Your task to perform on an android device: Go to battery settings Image 0: 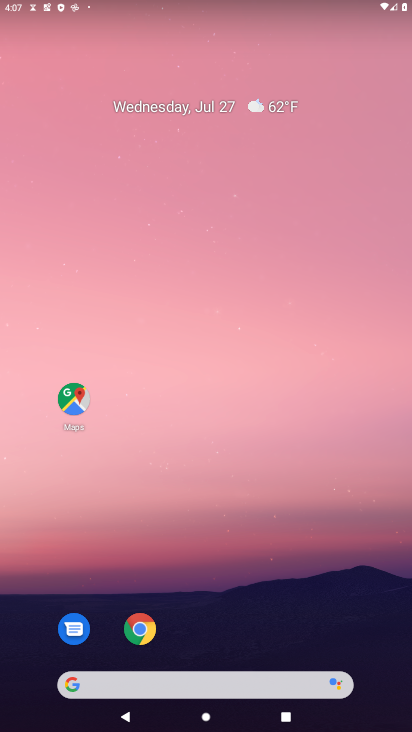
Step 0: drag from (177, 674) to (217, 1)
Your task to perform on an android device: Go to battery settings Image 1: 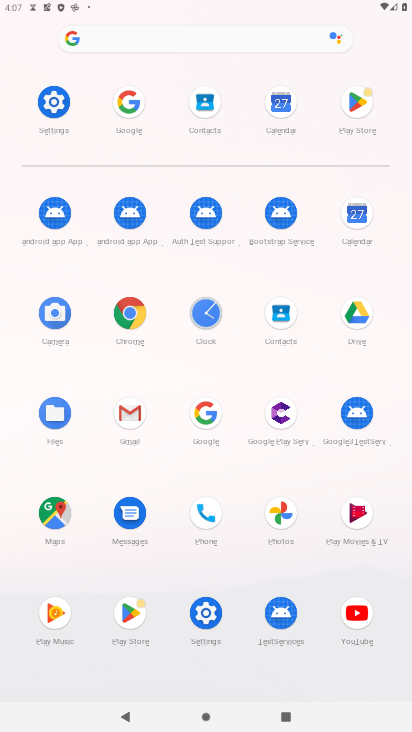
Step 1: click (54, 103)
Your task to perform on an android device: Go to battery settings Image 2: 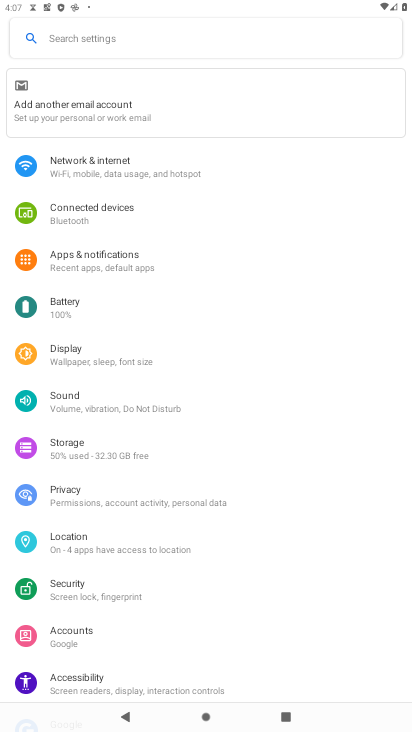
Step 2: click (68, 308)
Your task to perform on an android device: Go to battery settings Image 3: 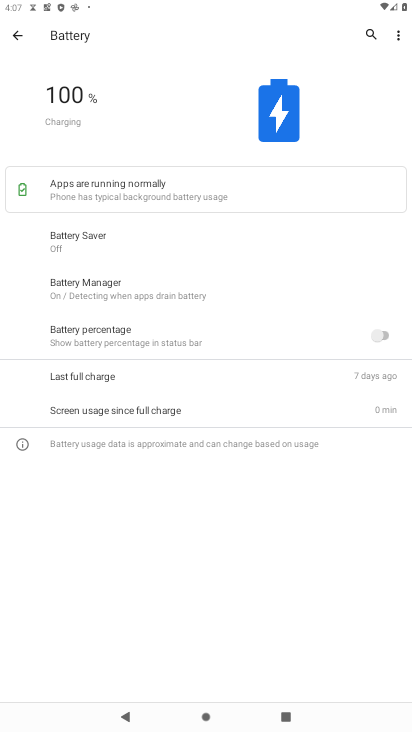
Step 3: task complete